Your task to perform on an android device: What is the recent news? Image 0: 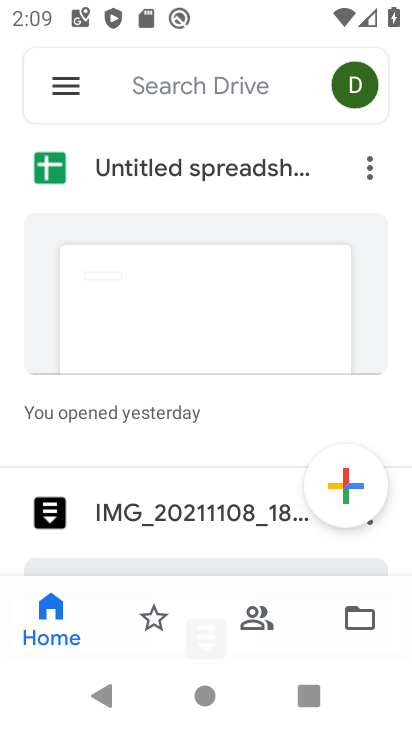
Step 0: press home button
Your task to perform on an android device: What is the recent news? Image 1: 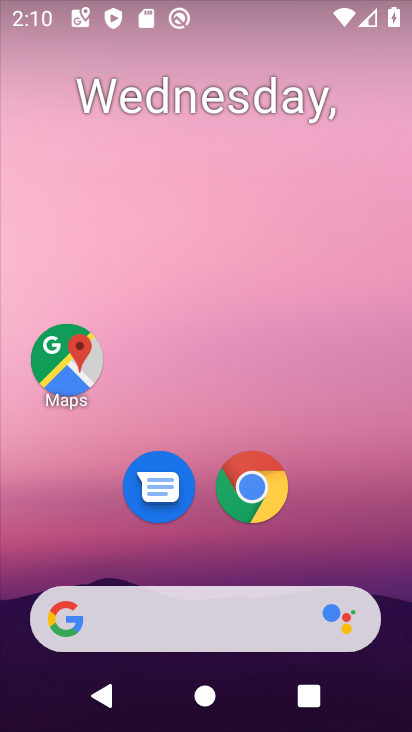
Step 1: drag from (3, 203) to (368, 244)
Your task to perform on an android device: What is the recent news? Image 2: 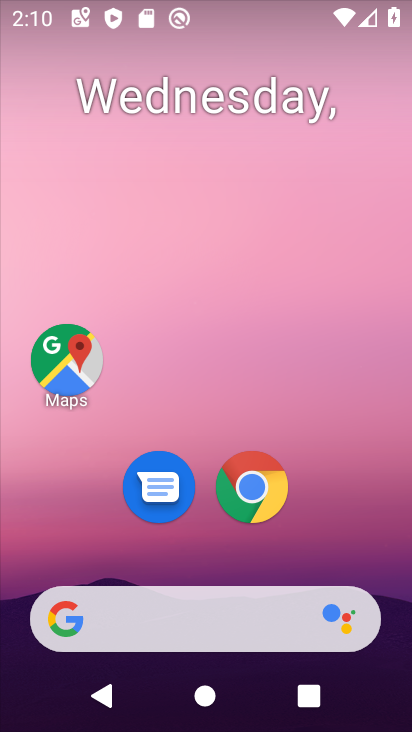
Step 2: click (5, 173)
Your task to perform on an android device: What is the recent news? Image 3: 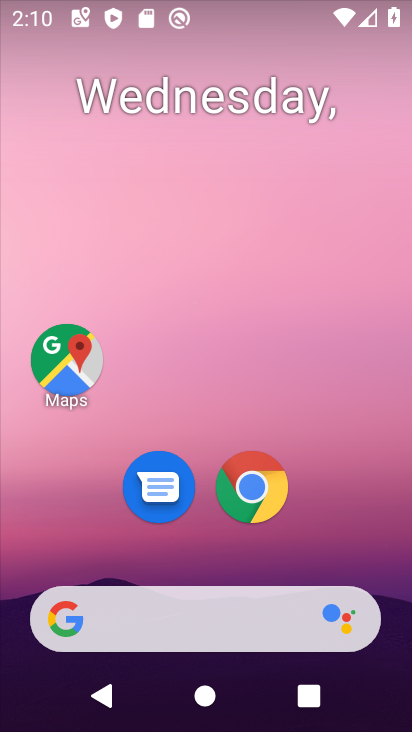
Step 3: drag from (5, 173) to (319, 251)
Your task to perform on an android device: What is the recent news? Image 4: 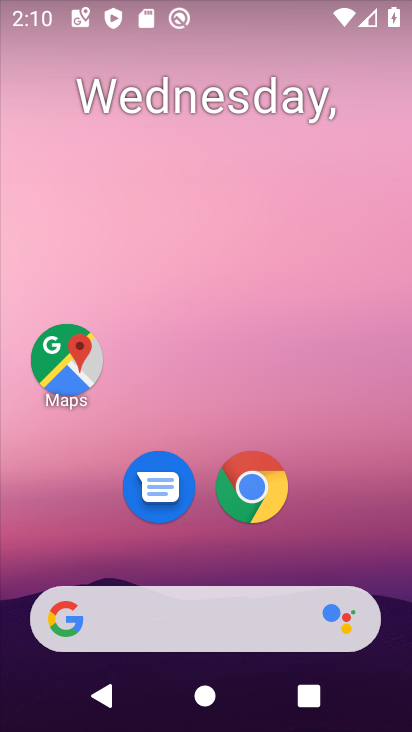
Step 4: click (205, 596)
Your task to perform on an android device: What is the recent news? Image 5: 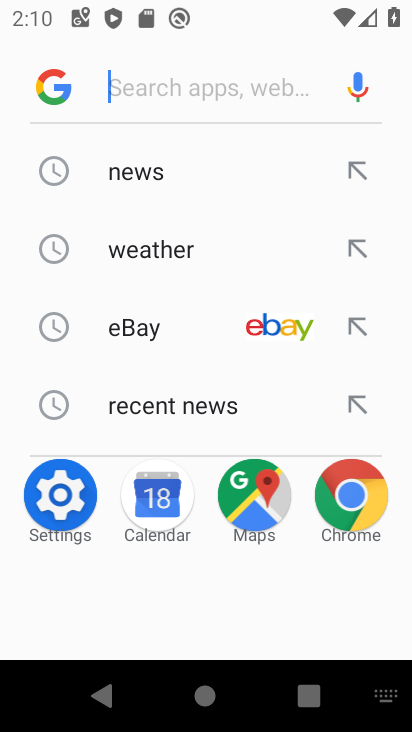
Step 5: click (144, 169)
Your task to perform on an android device: What is the recent news? Image 6: 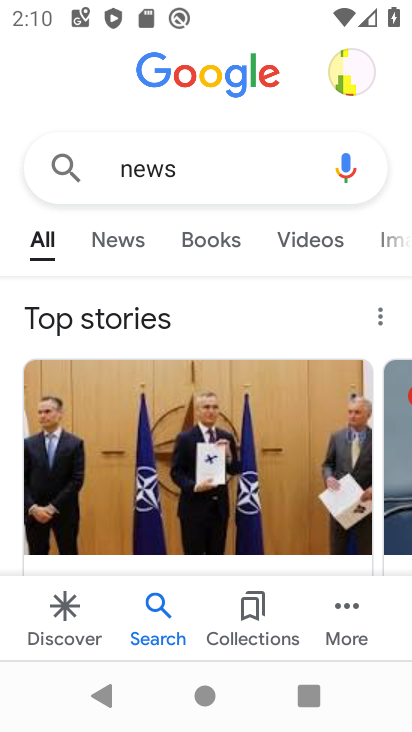
Step 6: task complete